Your task to perform on an android device: change the clock style Image 0: 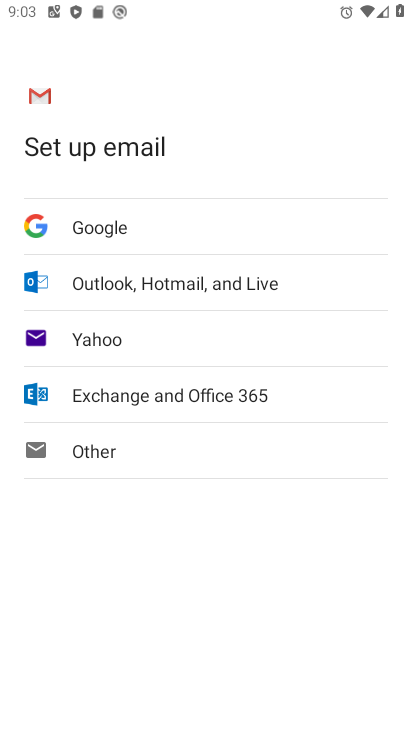
Step 0: press home button
Your task to perform on an android device: change the clock style Image 1: 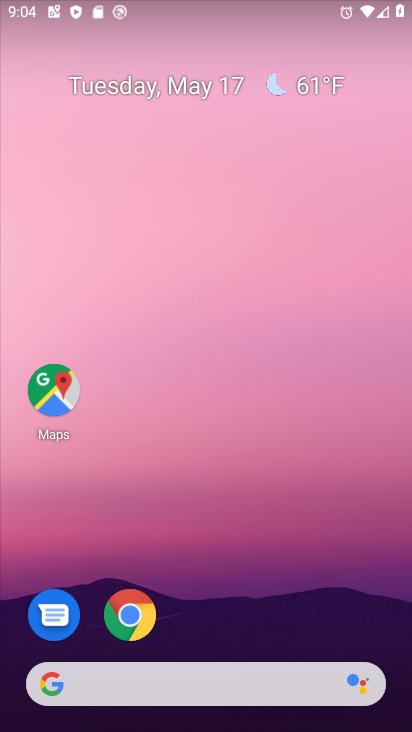
Step 1: drag from (216, 572) to (198, 121)
Your task to perform on an android device: change the clock style Image 2: 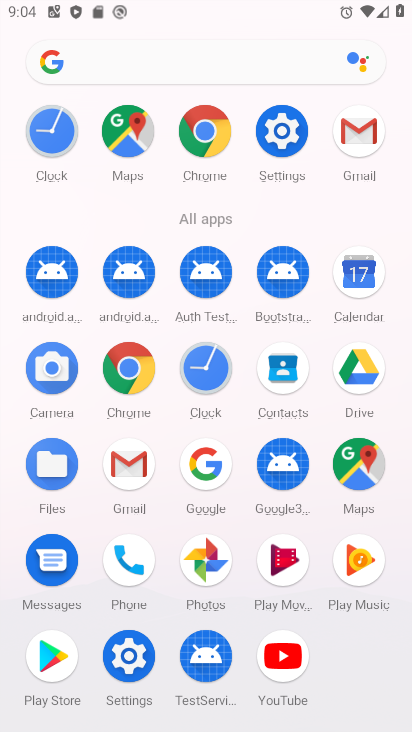
Step 2: click (203, 375)
Your task to perform on an android device: change the clock style Image 3: 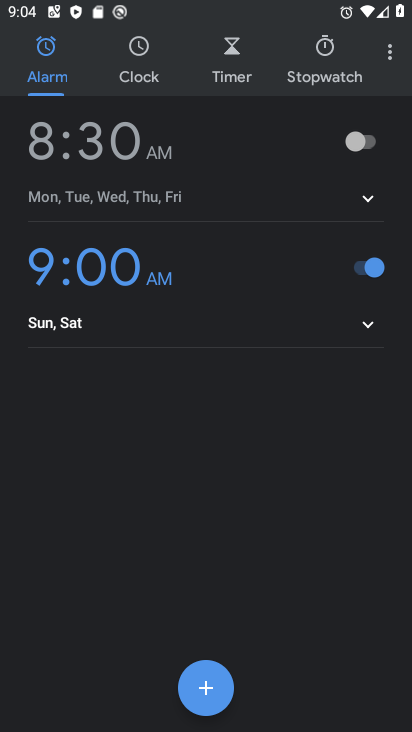
Step 3: click (391, 61)
Your task to perform on an android device: change the clock style Image 4: 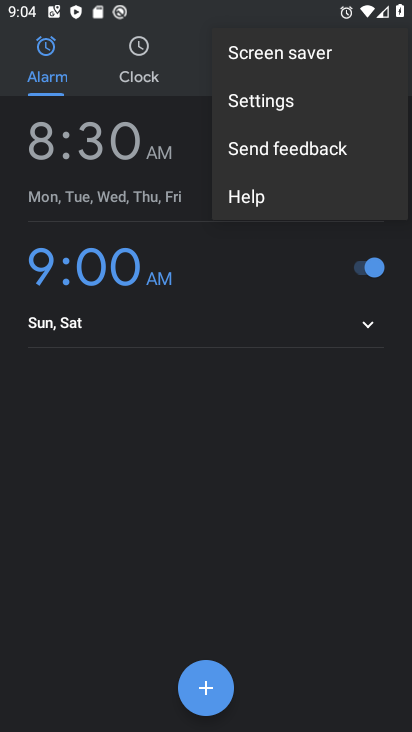
Step 4: click (271, 99)
Your task to perform on an android device: change the clock style Image 5: 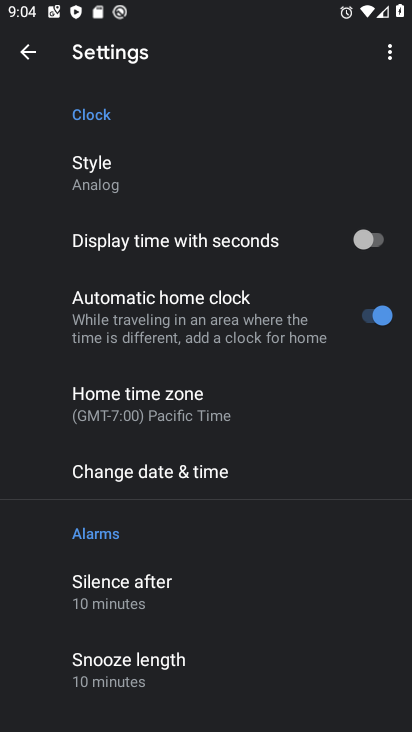
Step 5: click (327, 163)
Your task to perform on an android device: change the clock style Image 6: 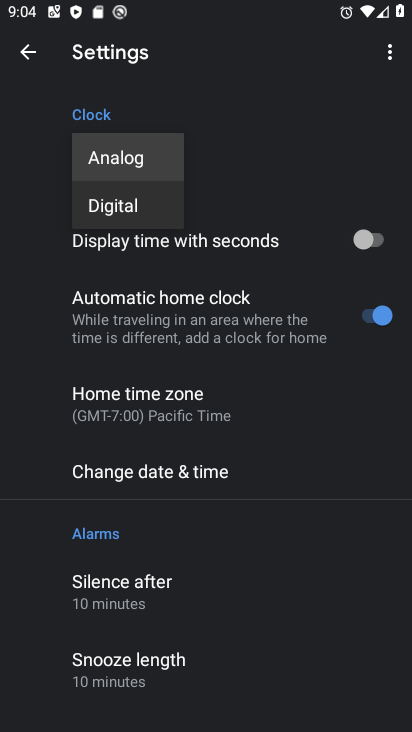
Step 6: click (119, 205)
Your task to perform on an android device: change the clock style Image 7: 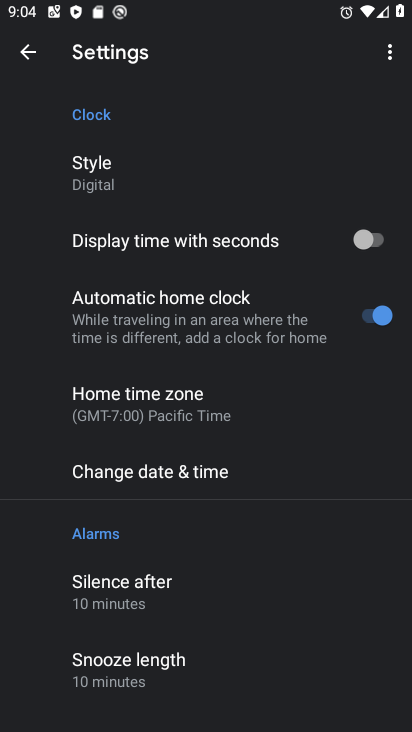
Step 7: task complete